Your task to perform on an android device: open app "Paramount+ | Peak Streaming" (install if not already installed) Image 0: 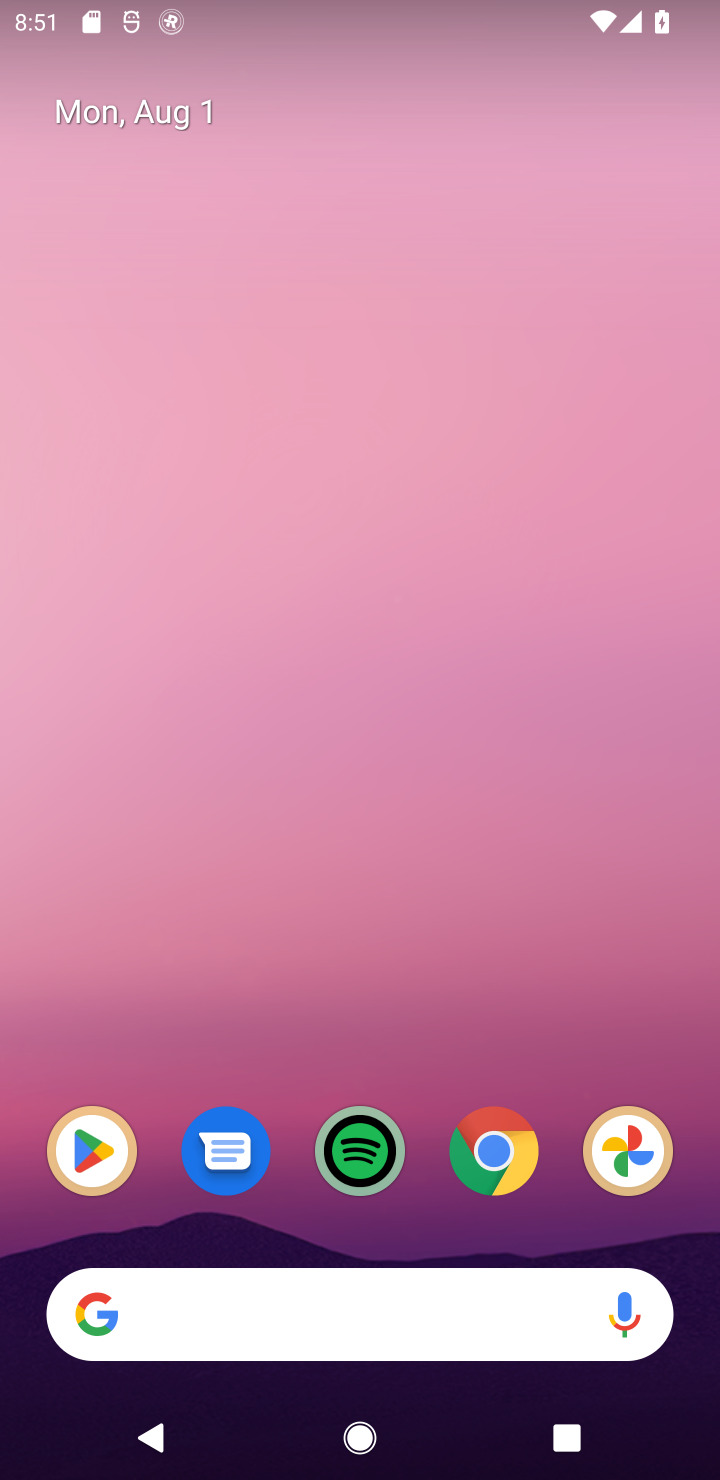
Step 0: click (66, 1123)
Your task to perform on an android device: open app "Paramount+ | Peak Streaming" (install if not already installed) Image 1: 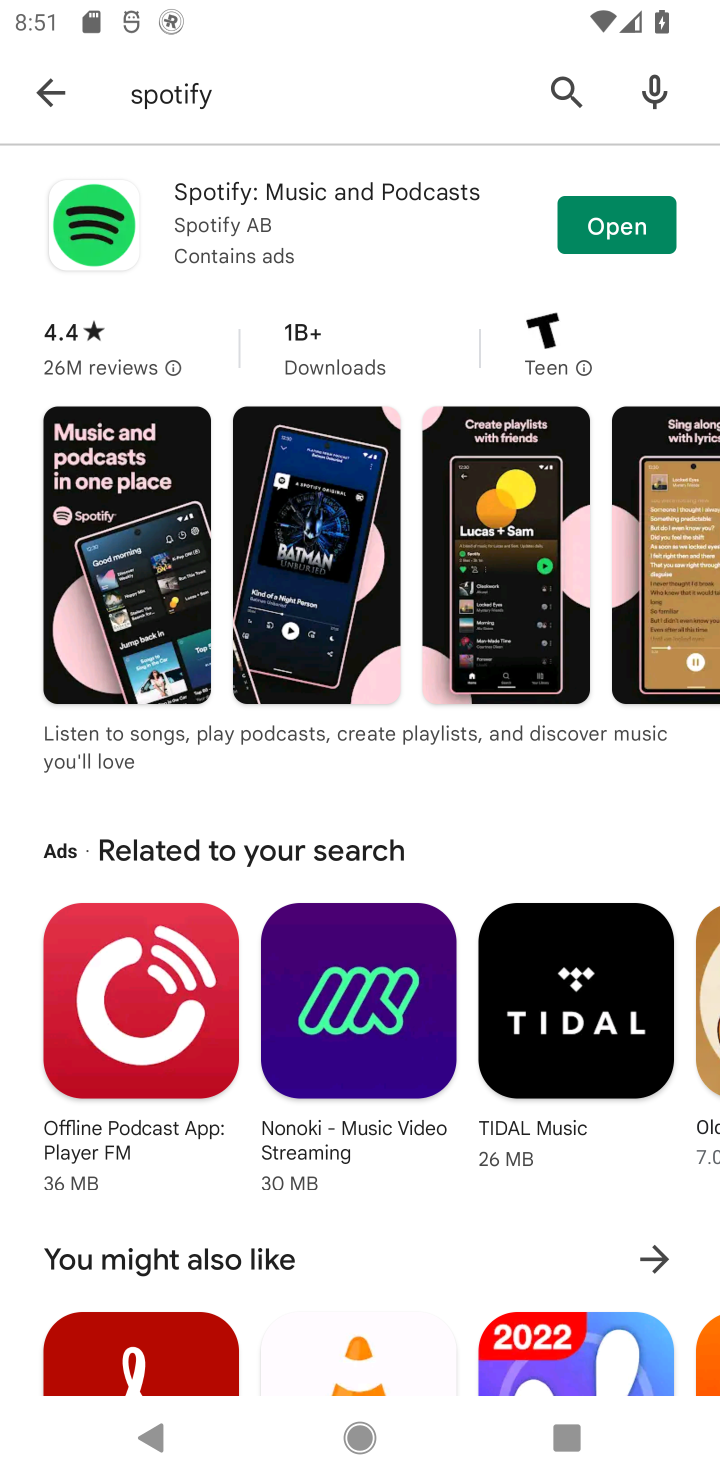
Step 1: click (555, 91)
Your task to perform on an android device: open app "Paramount+ | Peak Streaming" (install if not already installed) Image 2: 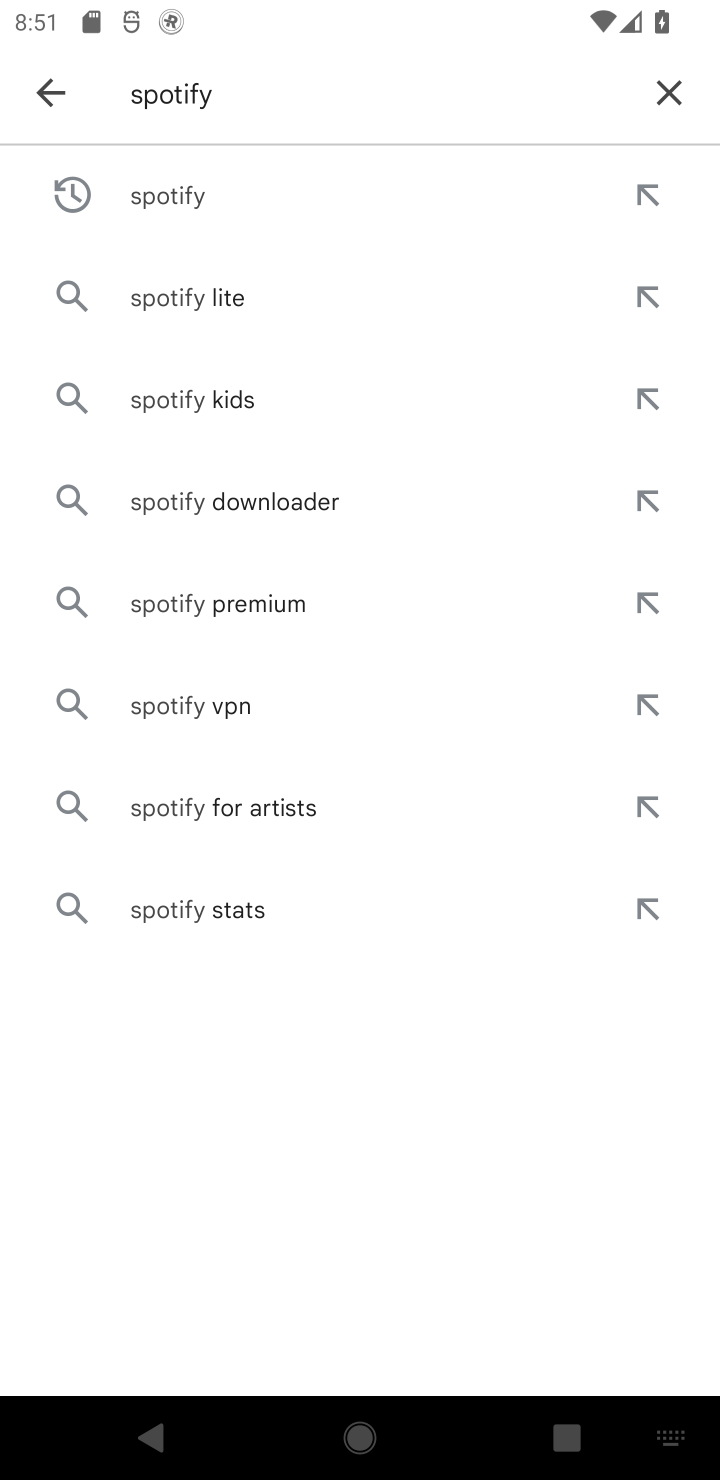
Step 2: click (687, 98)
Your task to perform on an android device: open app "Paramount+ | Peak Streaming" (install if not already installed) Image 3: 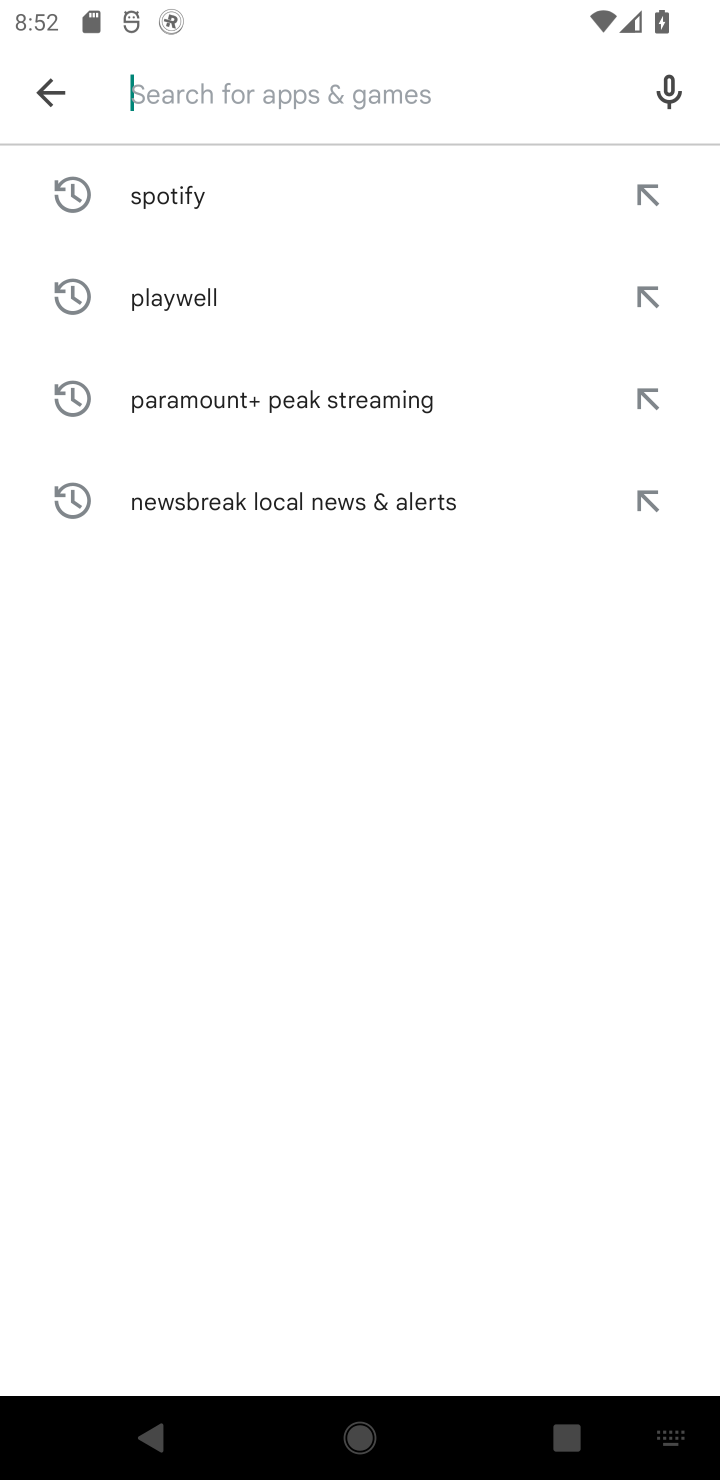
Step 3: type "Paramount+ | Peak Streaming"
Your task to perform on an android device: open app "Paramount+ | Peak Streaming" (install if not already installed) Image 4: 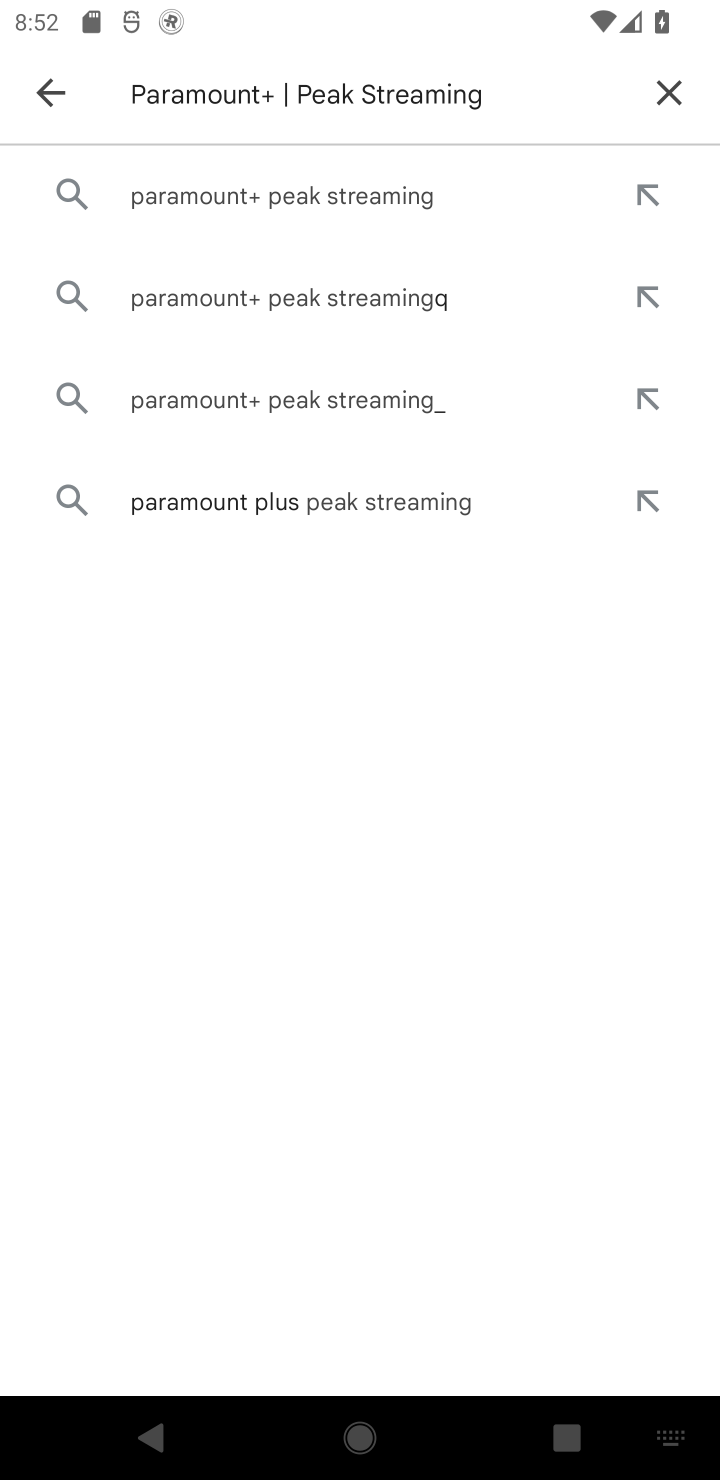
Step 4: click (274, 195)
Your task to perform on an android device: open app "Paramount+ | Peak Streaming" (install if not already installed) Image 5: 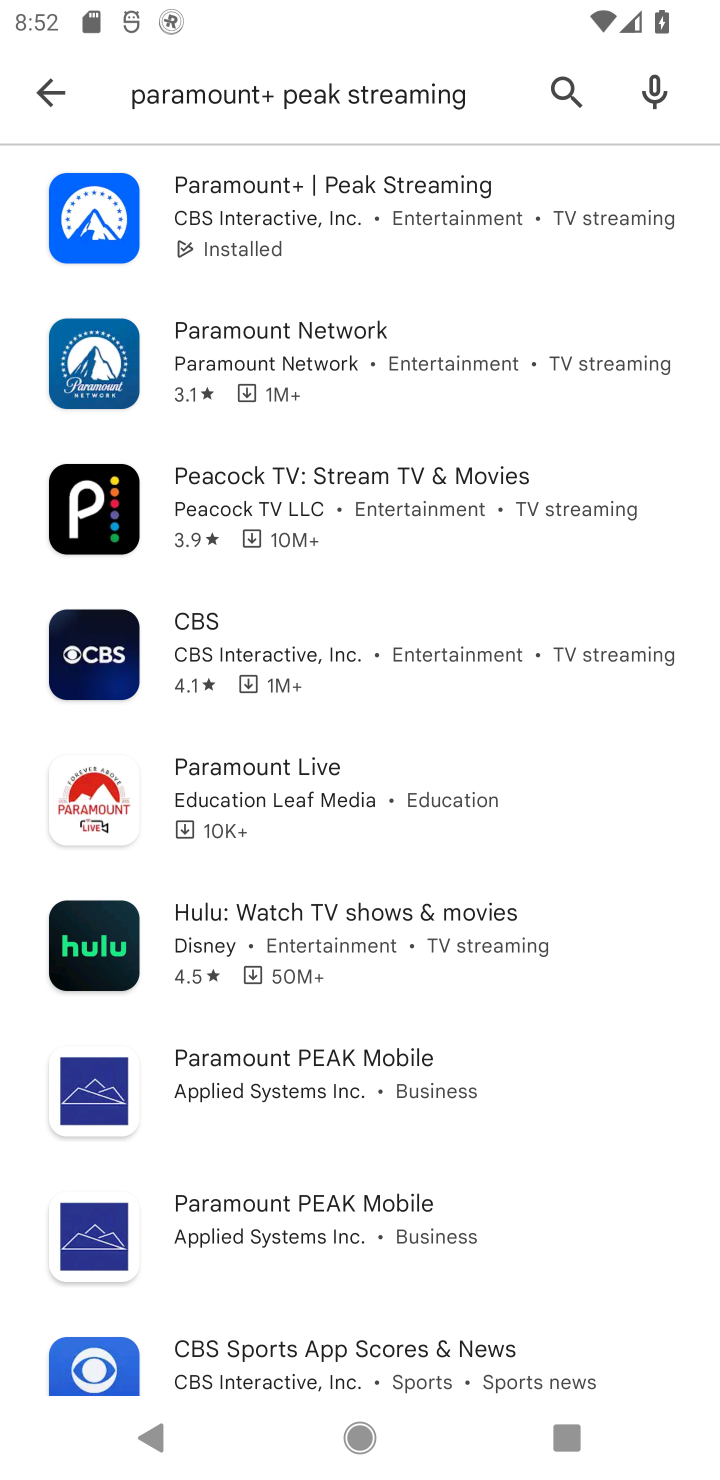
Step 5: click (350, 203)
Your task to perform on an android device: open app "Paramount+ | Peak Streaming" (install if not already installed) Image 6: 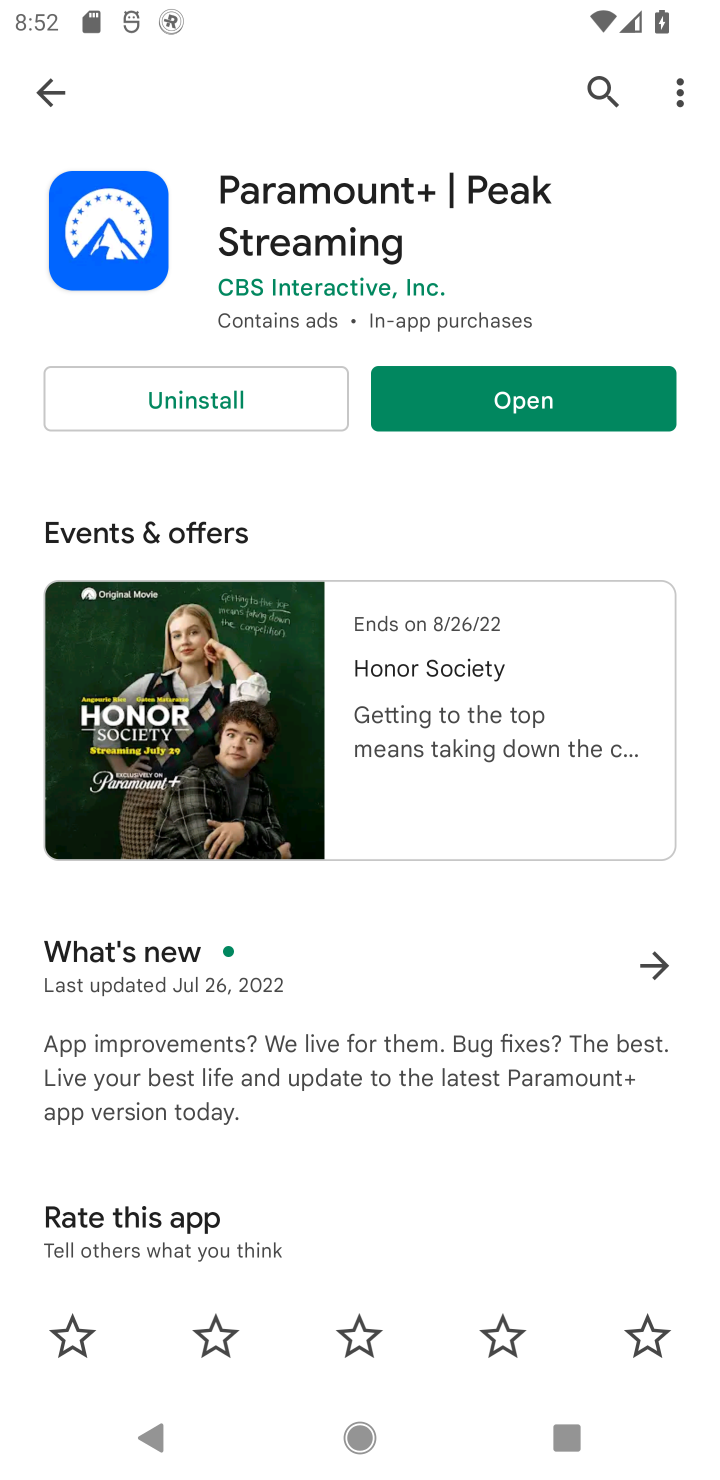
Step 6: click (471, 400)
Your task to perform on an android device: open app "Paramount+ | Peak Streaming" (install if not already installed) Image 7: 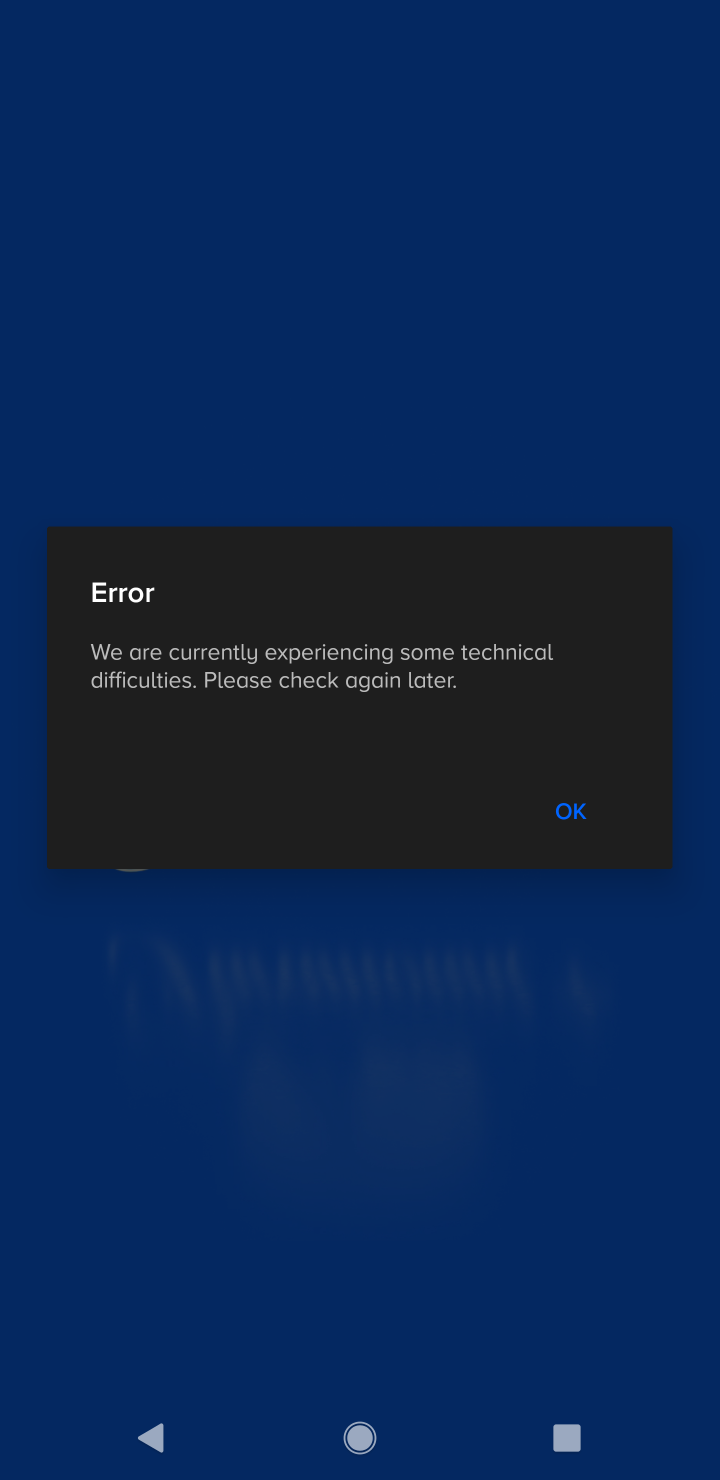
Step 7: task complete